Your task to perform on an android device: Open location settings Image 0: 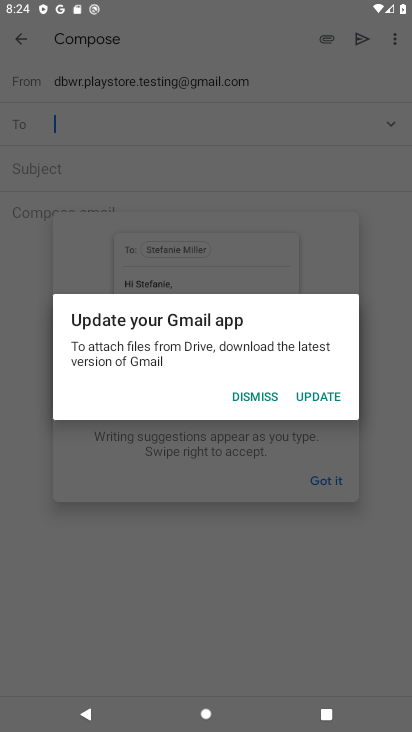
Step 0: press home button
Your task to perform on an android device: Open location settings Image 1: 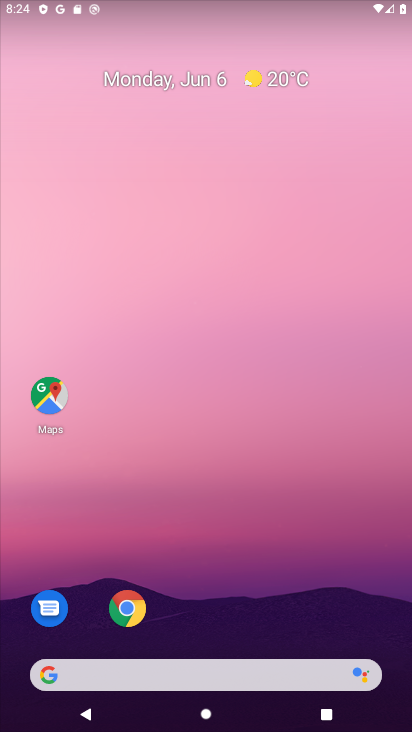
Step 1: drag from (223, 612) to (162, 183)
Your task to perform on an android device: Open location settings Image 2: 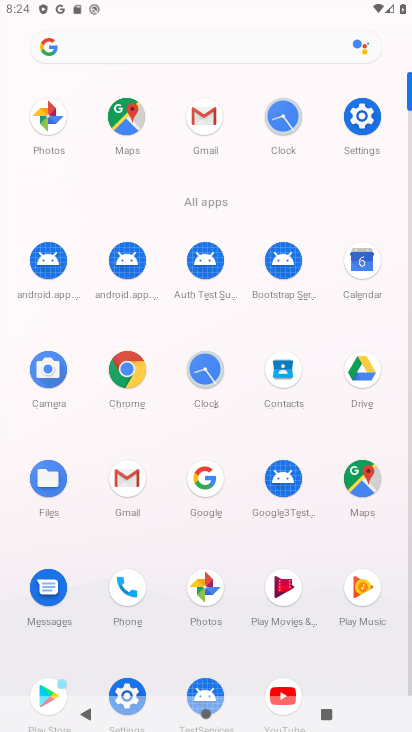
Step 2: click (379, 137)
Your task to perform on an android device: Open location settings Image 3: 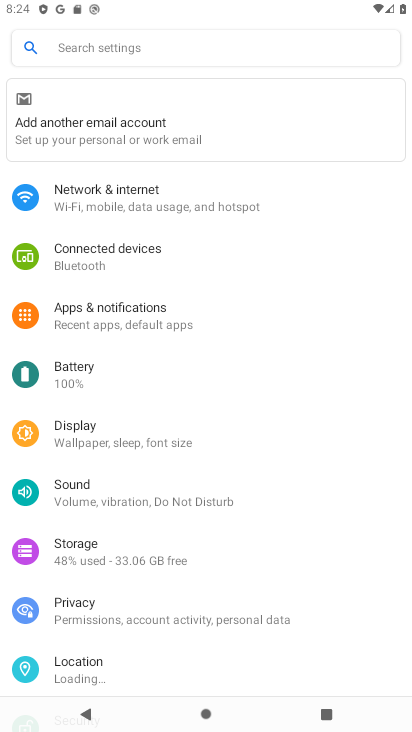
Step 3: click (152, 662)
Your task to perform on an android device: Open location settings Image 4: 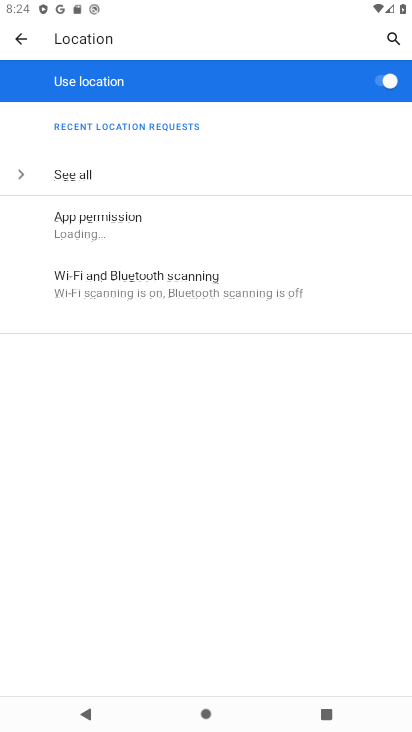
Step 4: task complete